Your task to perform on an android device: install app "Grab" Image 0: 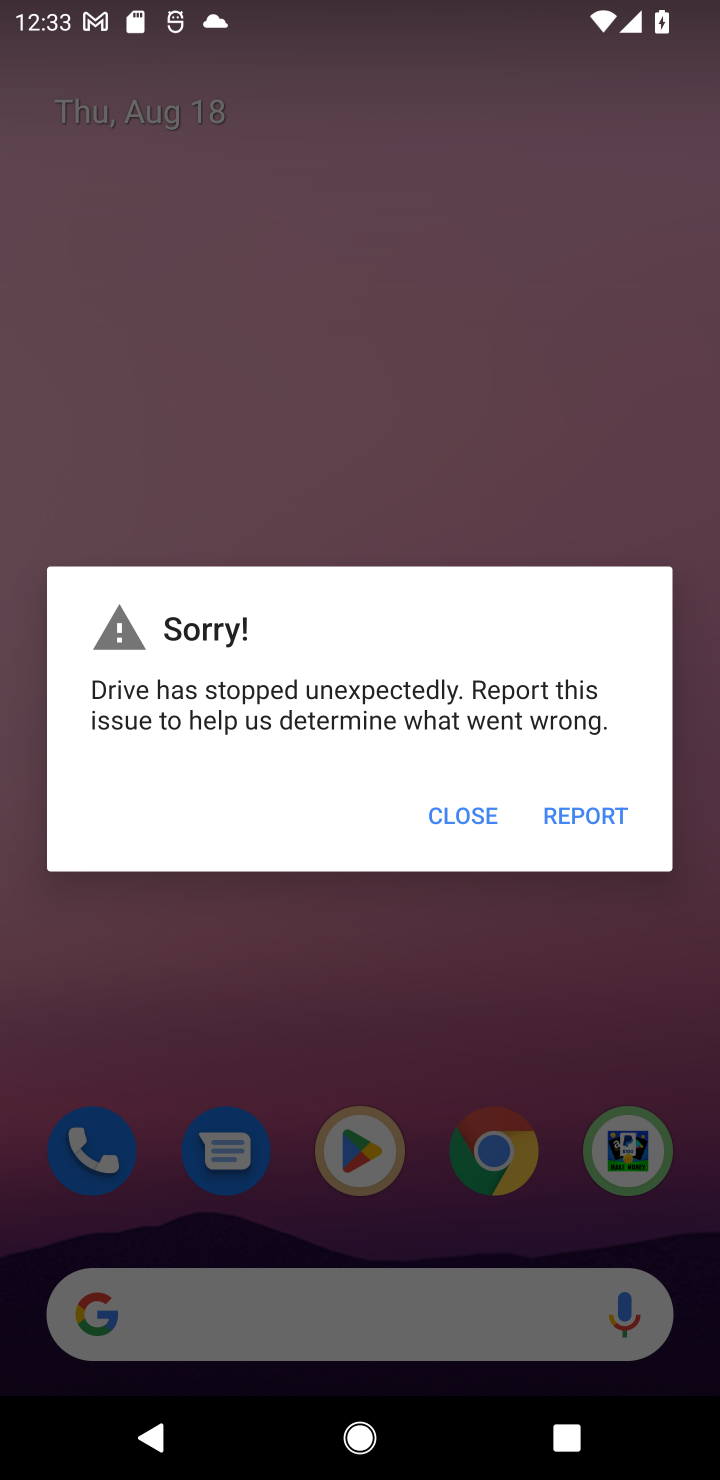
Step 0: press home button
Your task to perform on an android device: install app "Grab" Image 1: 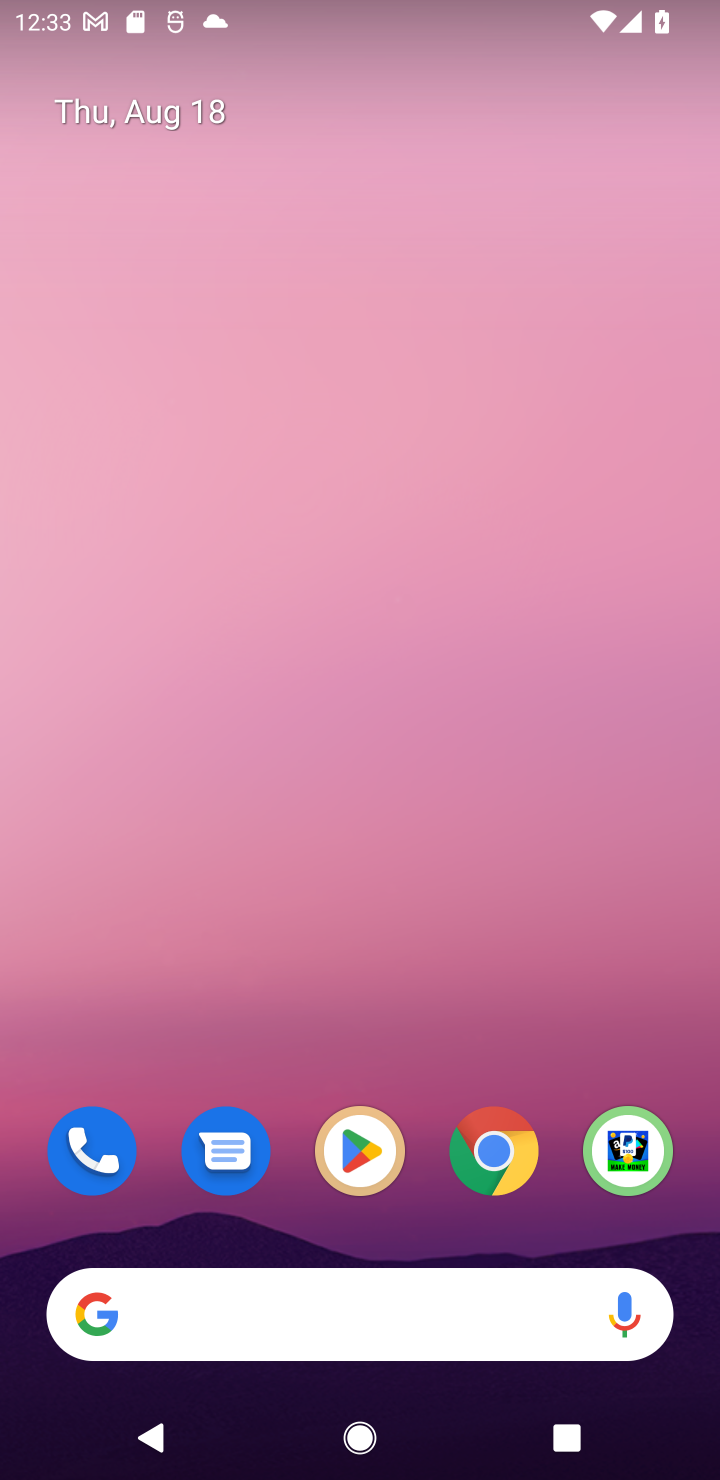
Step 1: click (351, 1156)
Your task to perform on an android device: install app "Grab" Image 2: 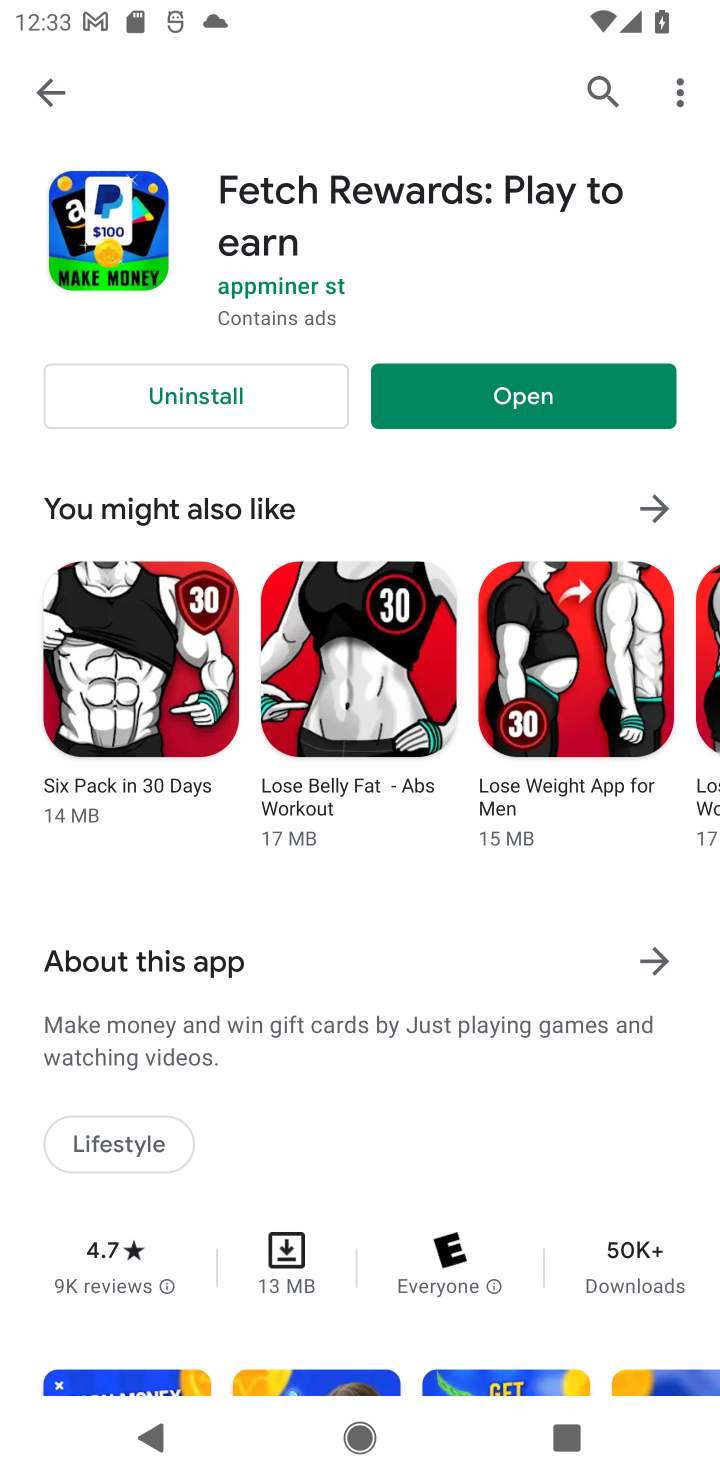
Step 2: click (45, 80)
Your task to perform on an android device: install app "Grab" Image 3: 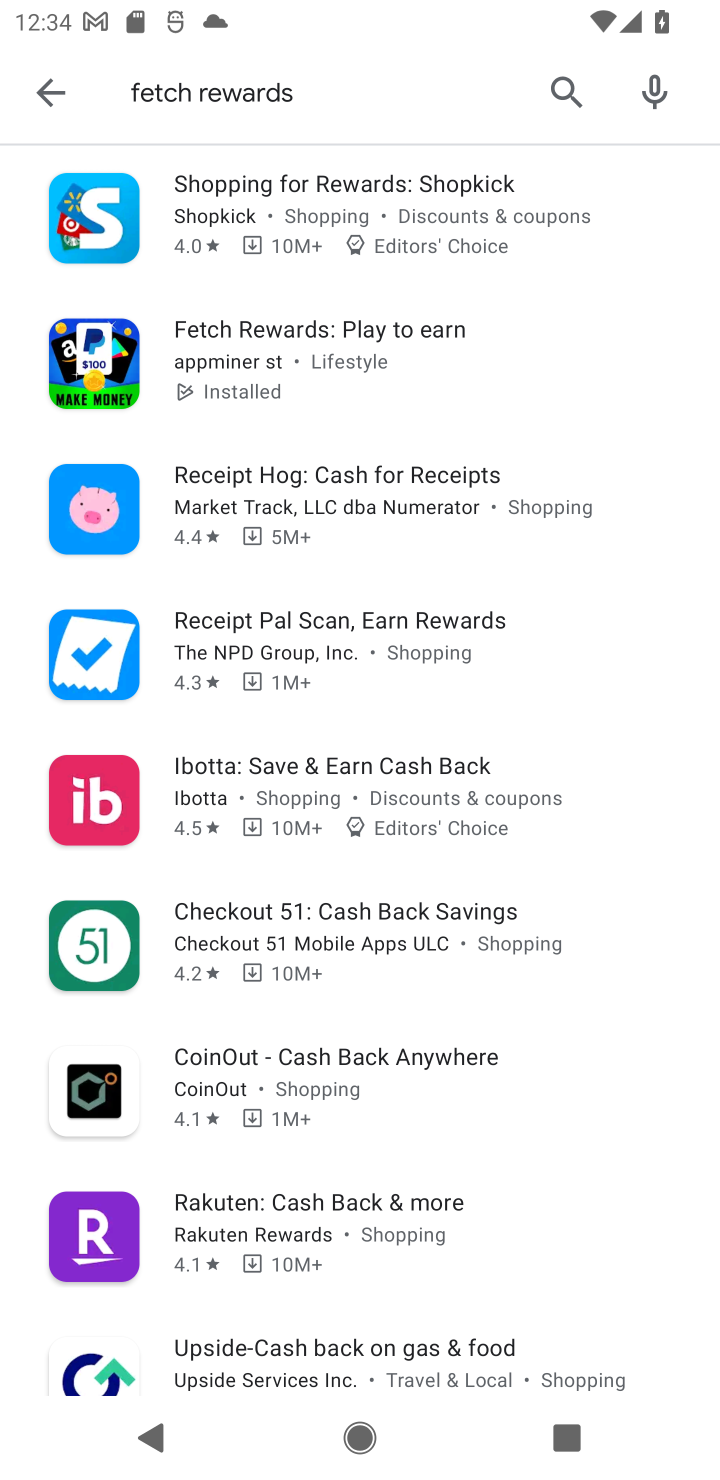
Step 3: click (44, 80)
Your task to perform on an android device: install app "Grab" Image 4: 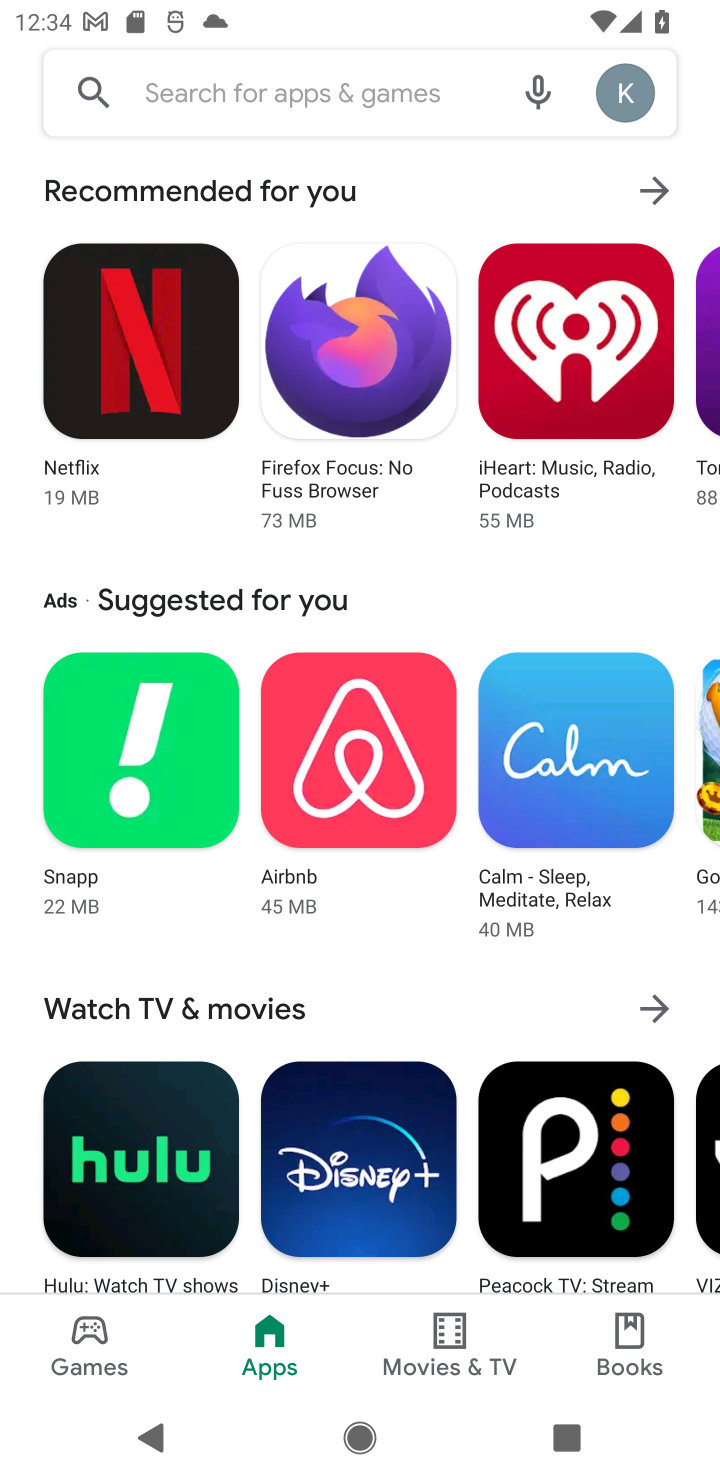
Step 4: click (204, 77)
Your task to perform on an android device: install app "Grab" Image 5: 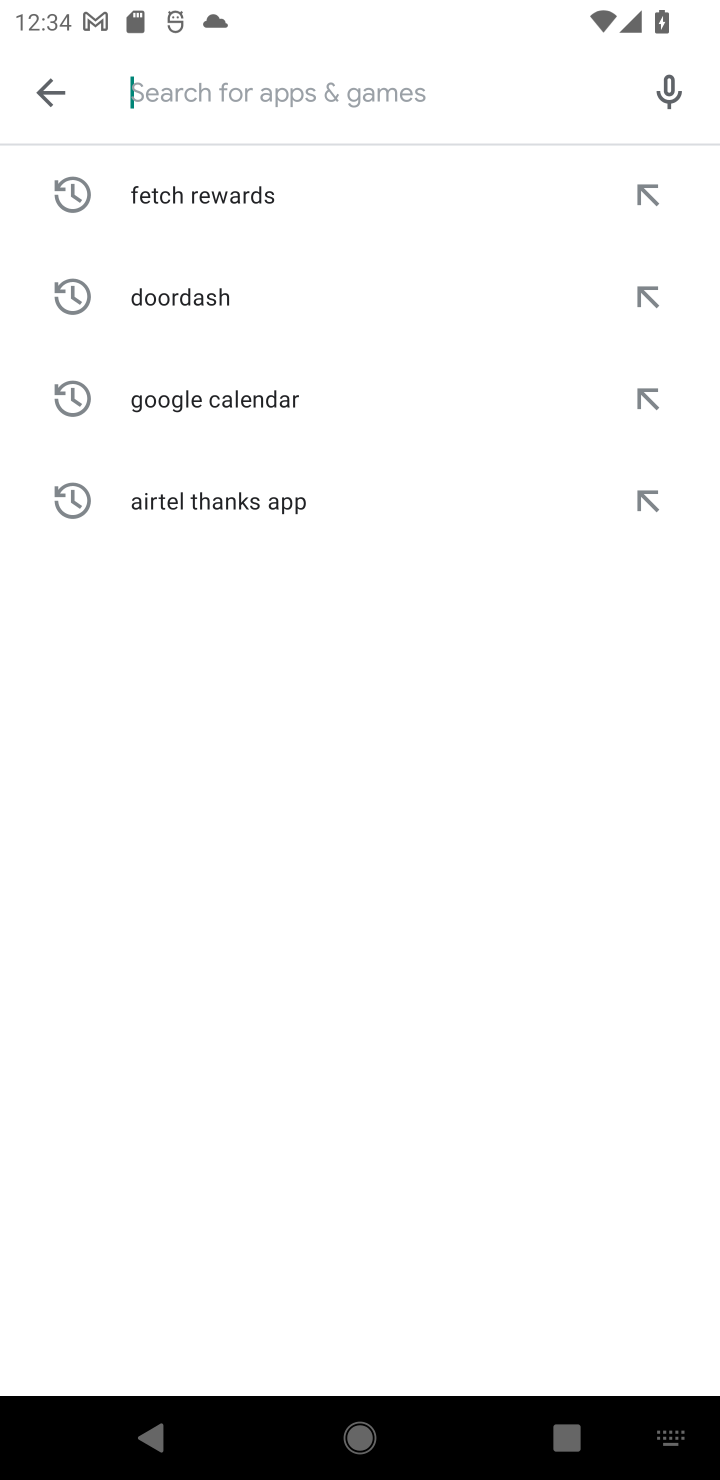
Step 5: type "Grab"
Your task to perform on an android device: install app "Grab" Image 6: 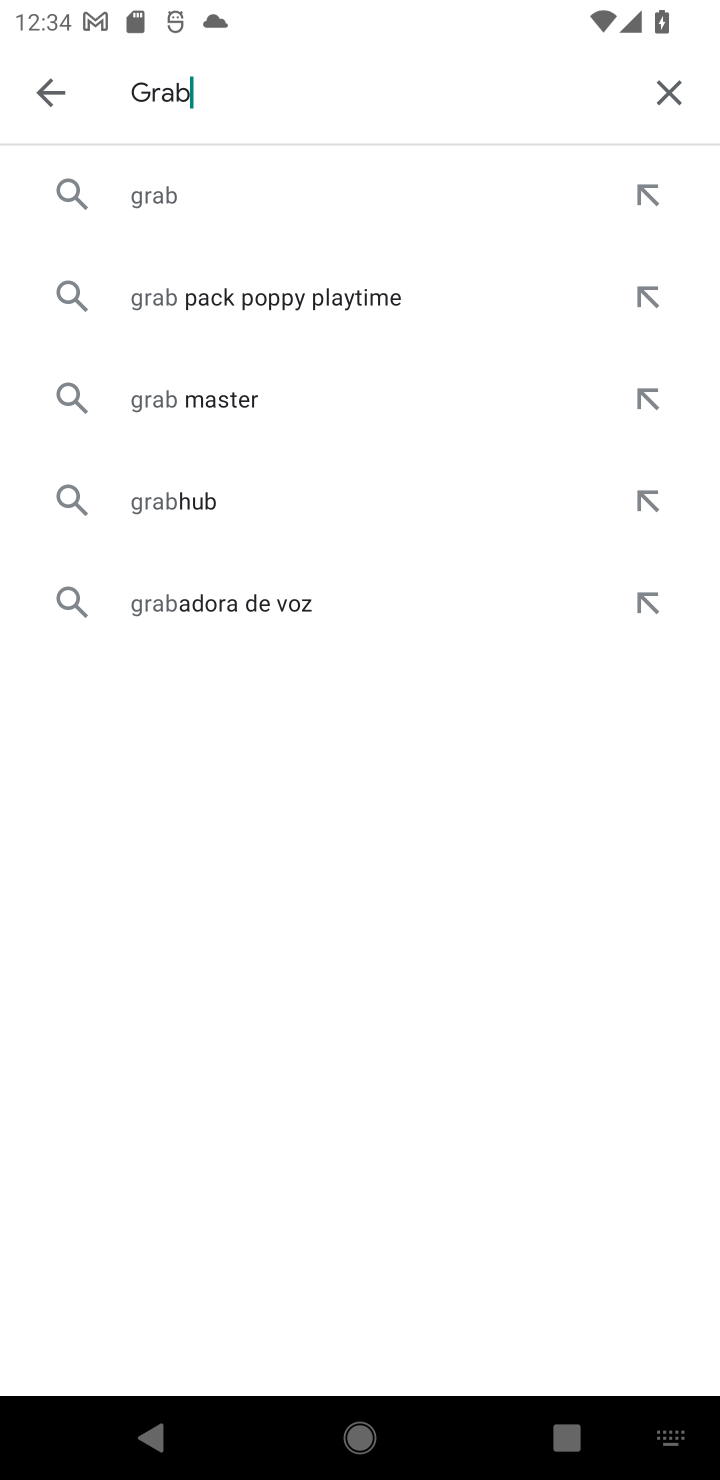
Step 6: click (132, 194)
Your task to perform on an android device: install app "Grab" Image 7: 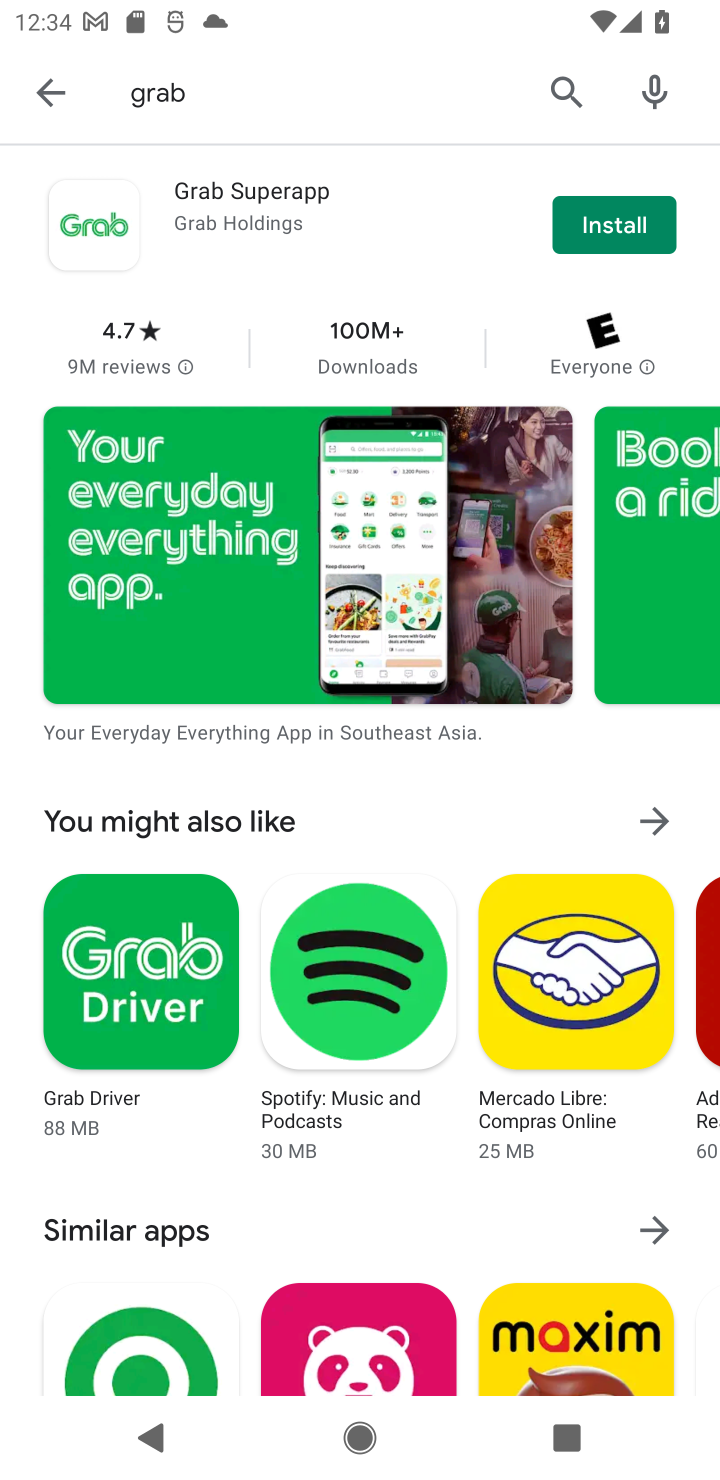
Step 7: click (593, 239)
Your task to perform on an android device: install app "Grab" Image 8: 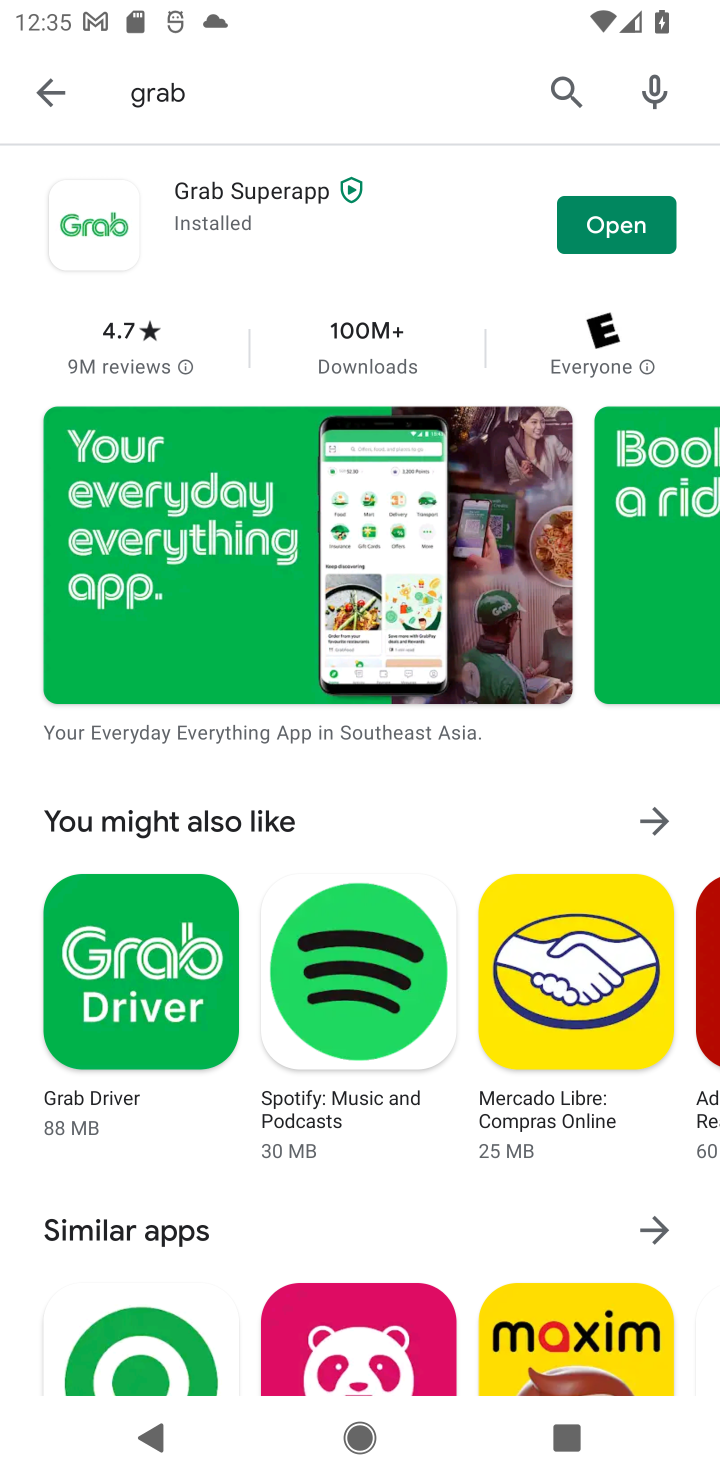
Step 8: click (610, 218)
Your task to perform on an android device: install app "Grab" Image 9: 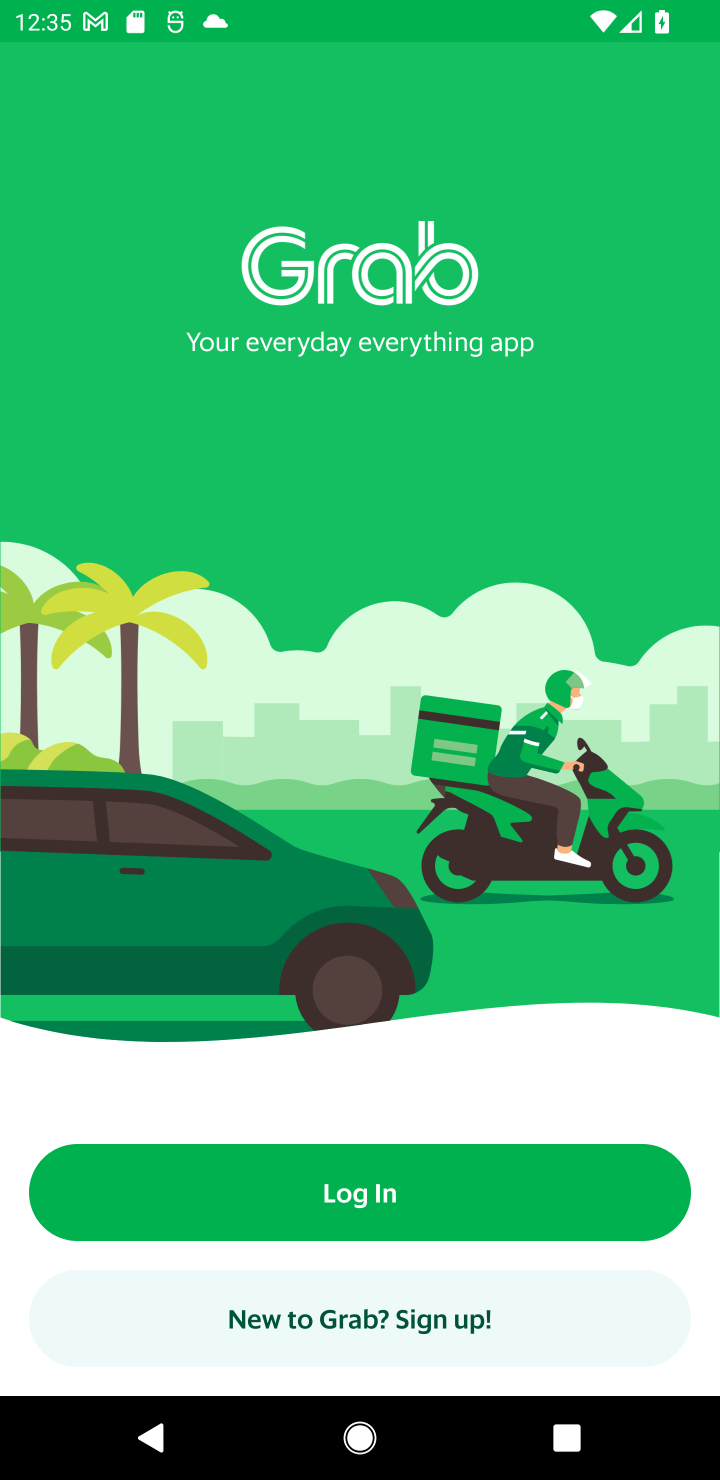
Step 9: task complete